Your task to perform on an android device: Do I have any events today? Image 0: 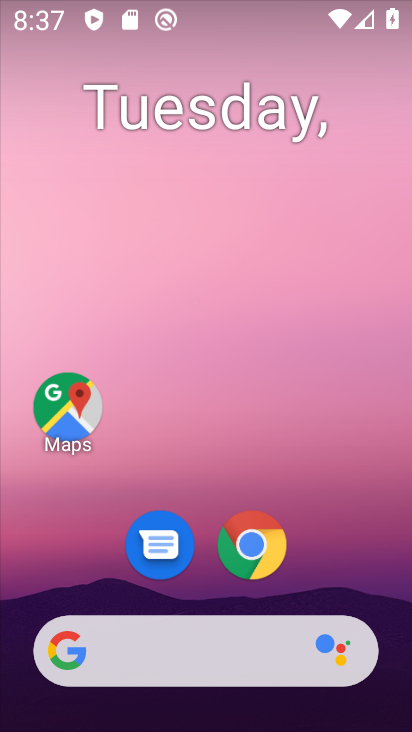
Step 0: drag from (405, 623) to (322, 229)
Your task to perform on an android device: Do I have any events today? Image 1: 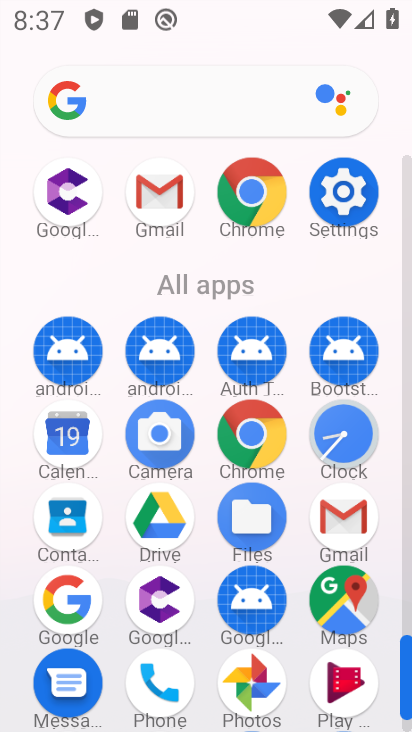
Step 1: click (84, 415)
Your task to perform on an android device: Do I have any events today? Image 2: 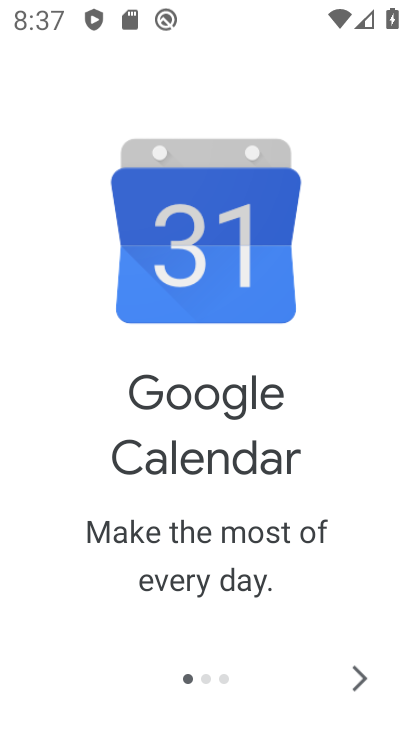
Step 2: click (353, 678)
Your task to perform on an android device: Do I have any events today? Image 3: 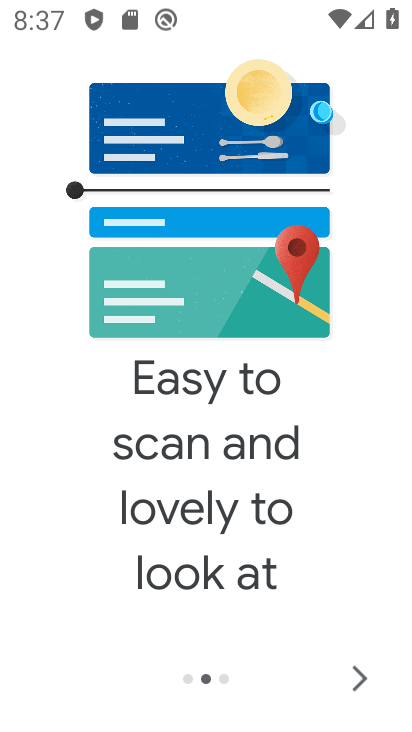
Step 3: click (353, 678)
Your task to perform on an android device: Do I have any events today? Image 4: 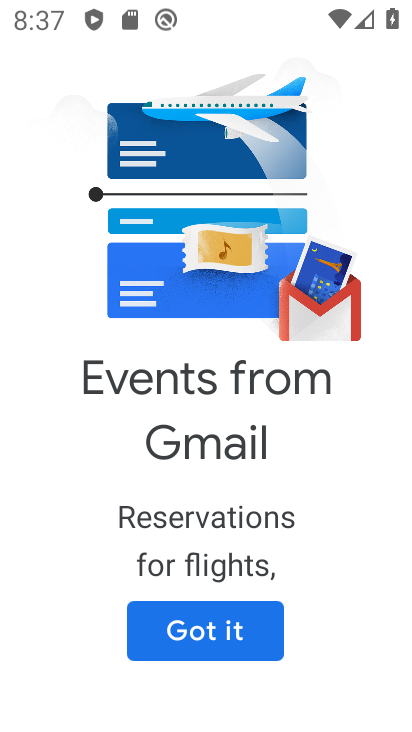
Step 4: click (238, 629)
Your task to perform on an android device: Do I have any events today? Image 5: 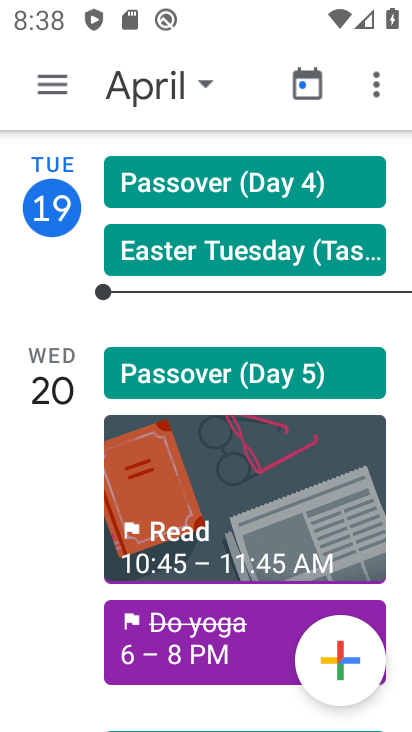
Step 5: click (43, 80)
Your task to perform on an android device: Do I have any events today? Image 6: 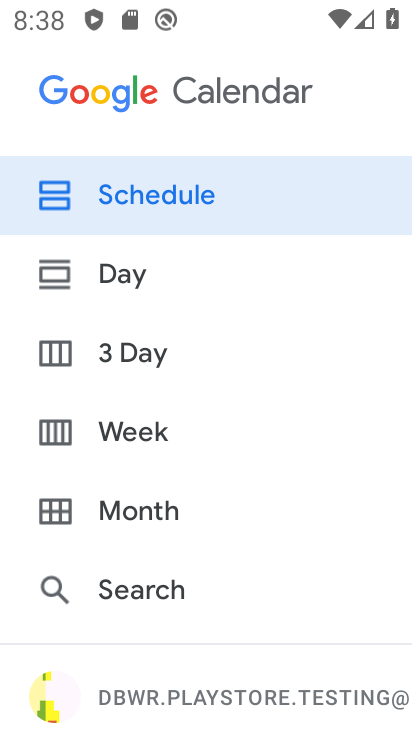
Step 6: click (172, 605)
Your task to perform on an android device: Do I have any events today? Image 7: 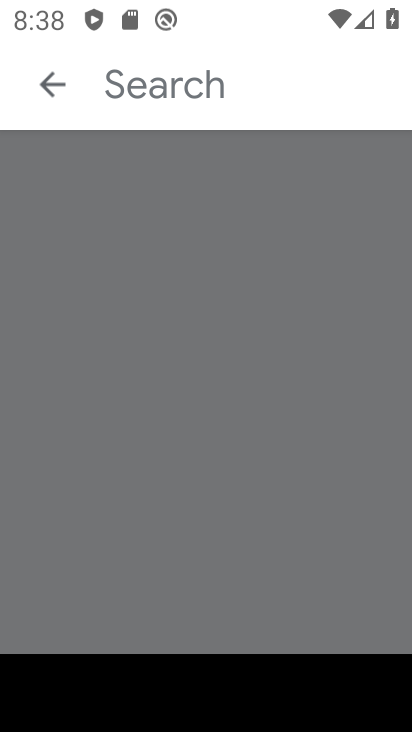
Step 7: click (180, 68)
Your task to perform on an android device: Do I have any events today? Image 8: 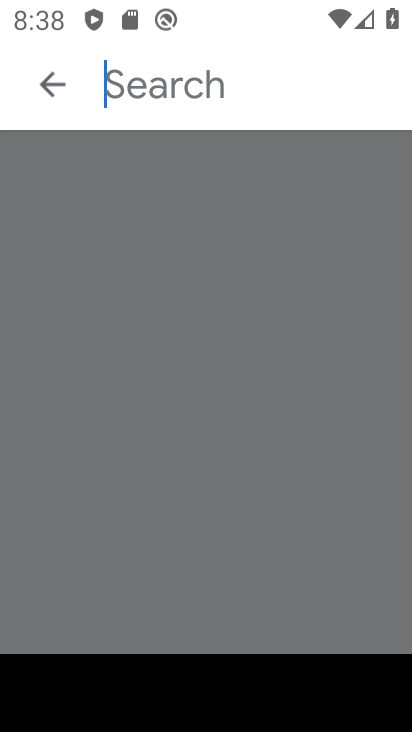
Step 8: type "Do I have any events today?"
Your task to perform on an android device: Do I have any events today? Image 9: 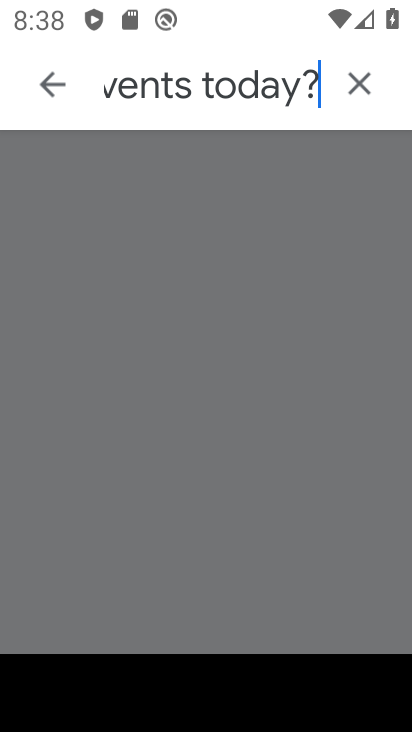
Step 9: press enter
Your task to perform on an android device: Do I have any events today? Image 10: 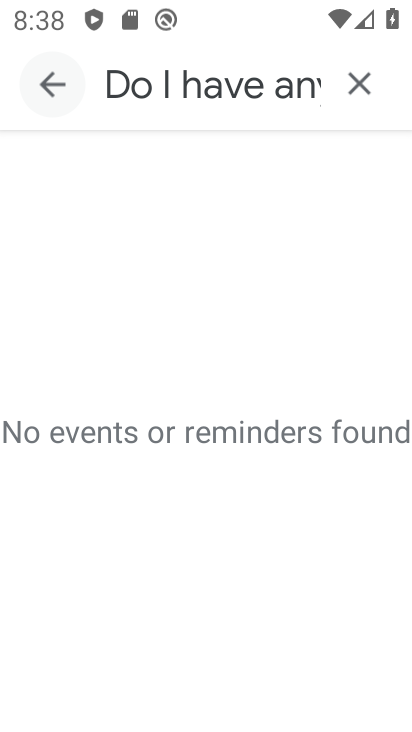
Step 10: task complete